Your task to perform on an android device: snooze an email in the gmail app Image 0: 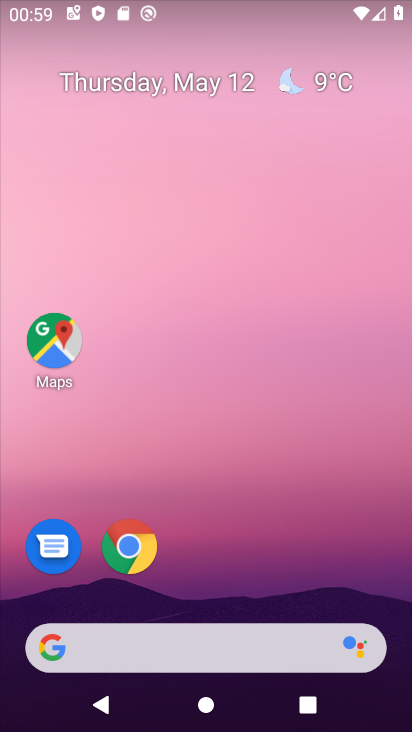
Step 0: drag from (127, 562) to (131, 261)
Your task to perform on an android device: snooze an email in the gmail app Image 1: 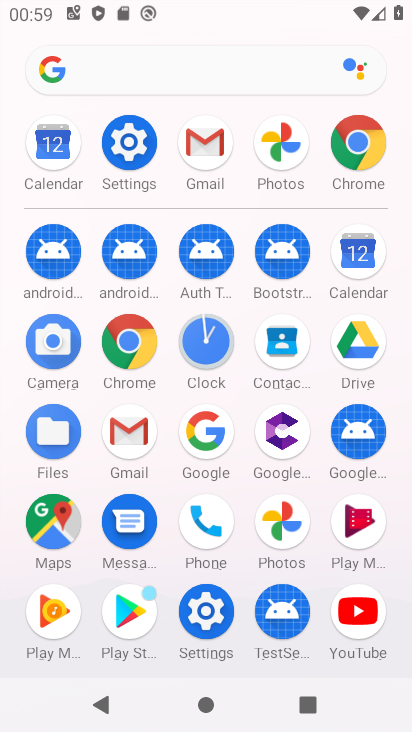
Step 1: click (210, 144)
Your task to perform on an android device: snooze an email in the gmail app Image 2: 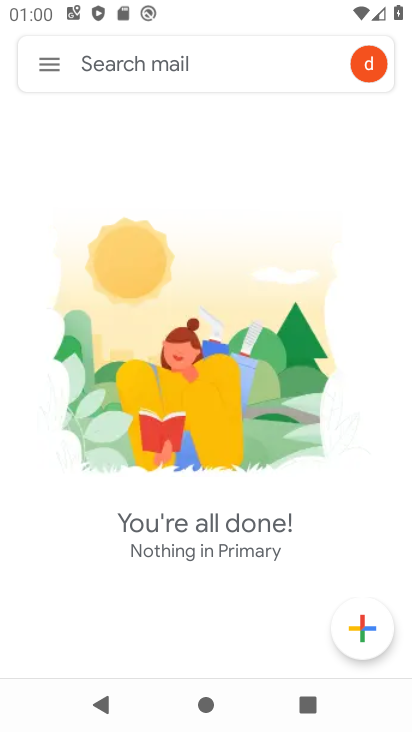
Step 2: click (54, 64)
Your task to perform on an android device: snooze an email in the gmail app Image 3: 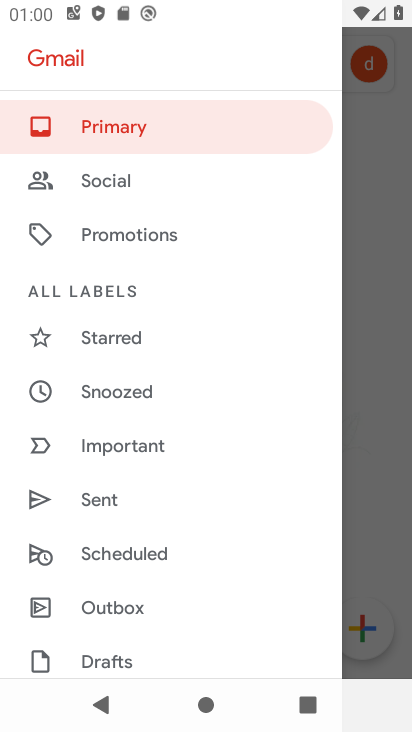
Step 3: drag from (148, 540) to (186, 214)
Your task to perform on an android device: snooze an email in the gmail app Image 4: 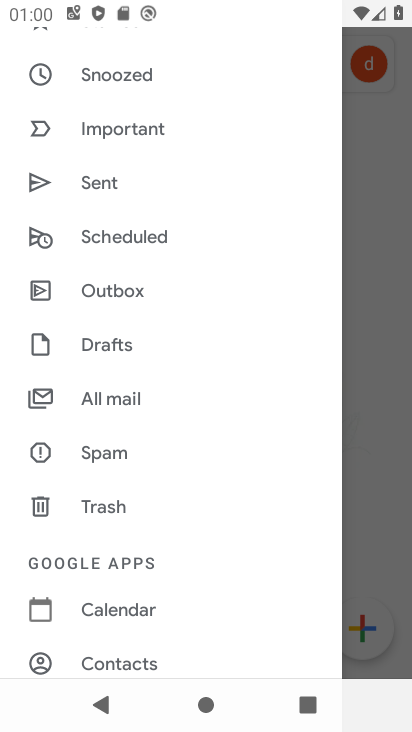
Step 4: click (127, 393)
Your task to perform on an android device: snooze an email in the gmail app Image 5: 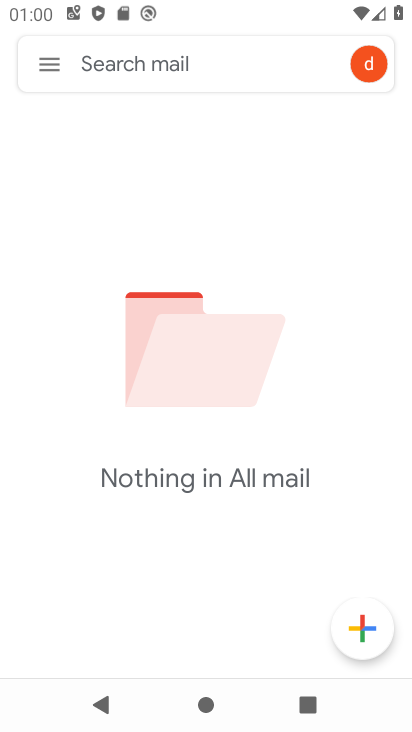
Step 5: task complete